Your task to perform on an android device: Go to sound settings Image 0: 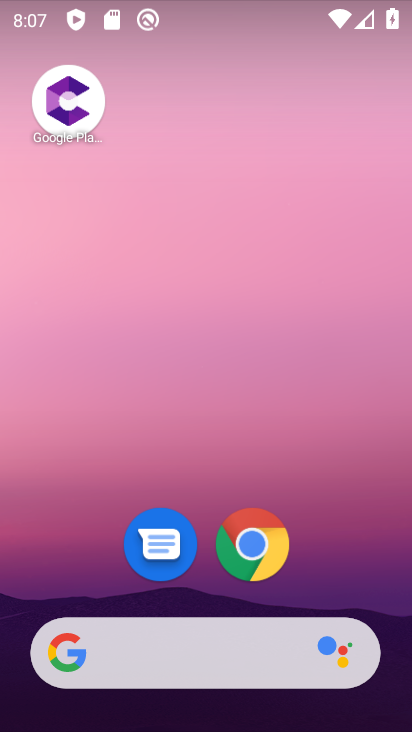
Step 0: drag from (205, 610) to (154, 31)
Your task to perform on an android device: Go to sound settings Image 1: 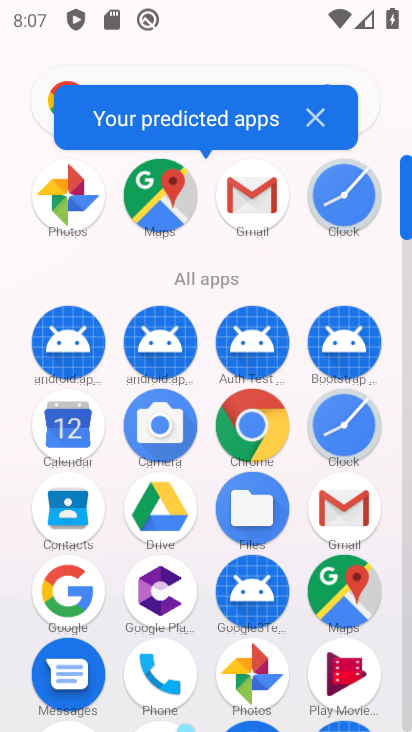
Step 1: drag from (203, 578) to (132, 28)
Your task to perform on an android device: Go to sound settings Image 2: 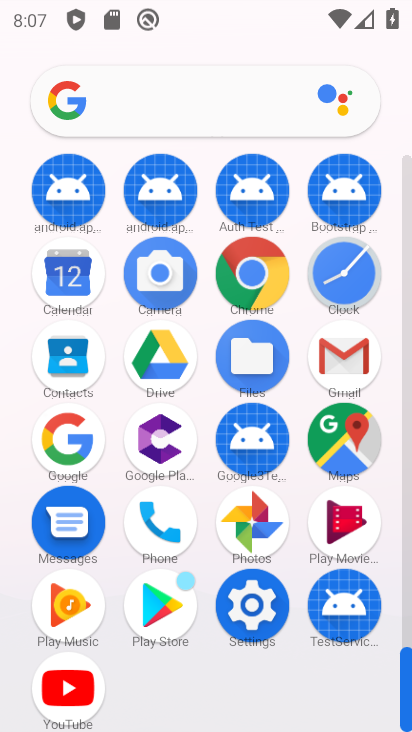
Step 2: click (275, 617)
Your task to perform on an android device: Go to sound settings Image 3: 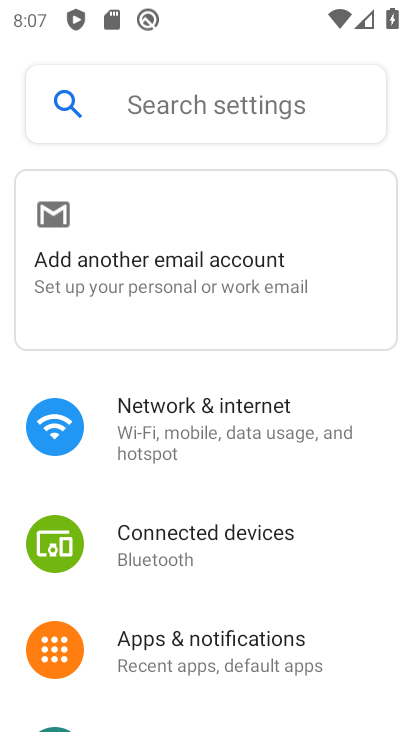
Step 3: drag from (236, 614) to (219, 255)
Your task to perform on an android device: Go to sound settings Image 4: 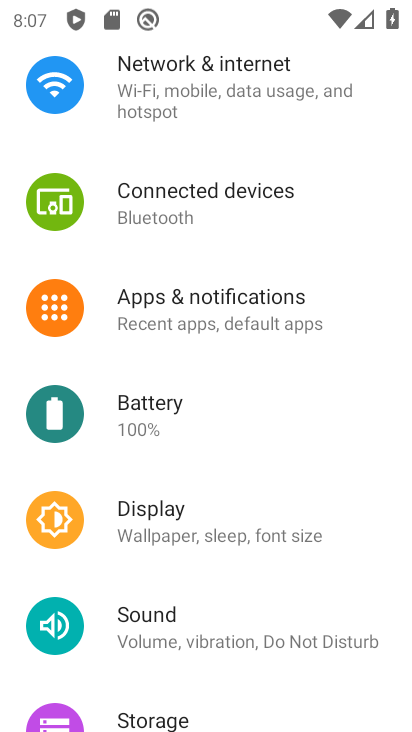
Step 4: click (150, 605)
Your task to perform on an android device: Go to sound settings Image 5: 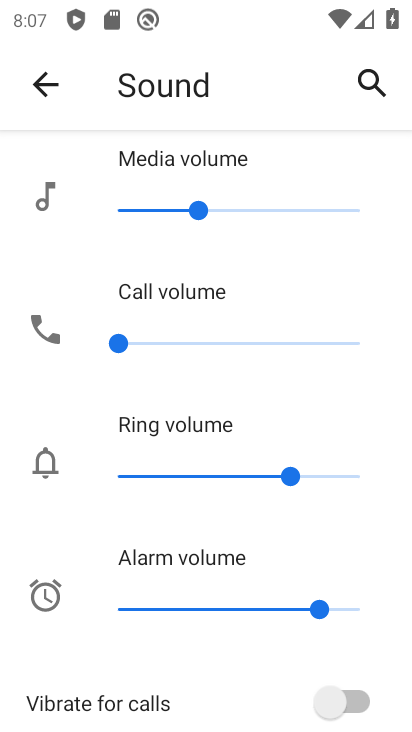
Step 5: task complete